Your task to perform on an android device: check google app version Image 0: 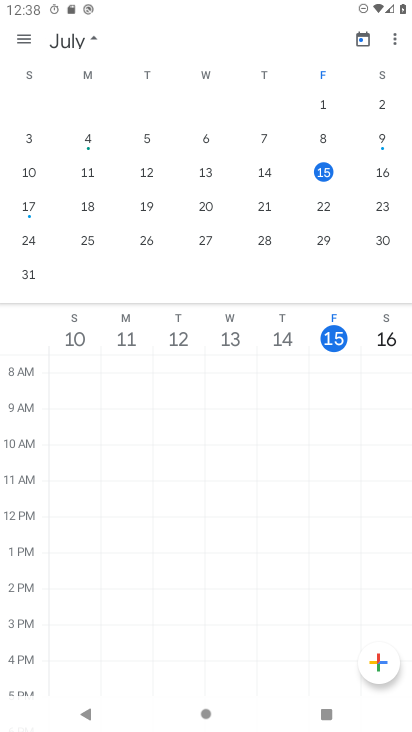
Step 0: press home button
Your task to perform on an android device: check google app version Image 1: 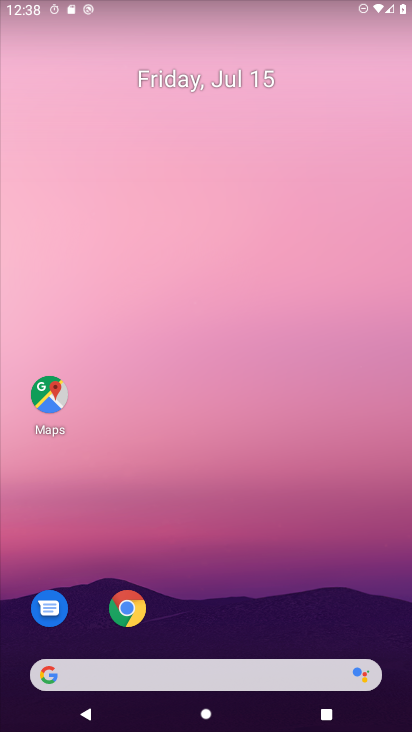
Step 1: drag from (69, 652) to (241, 27)
Your task to perform on an android device: check google app version Image 2: 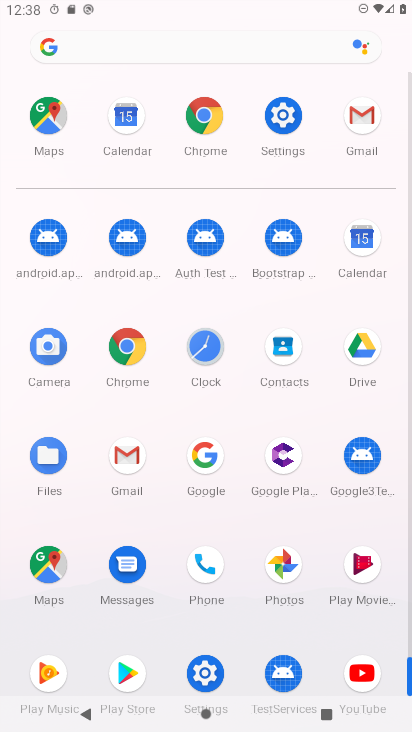
Step 2: click (132, 351)
Your task to perform on an android device: check google app version Image 3: 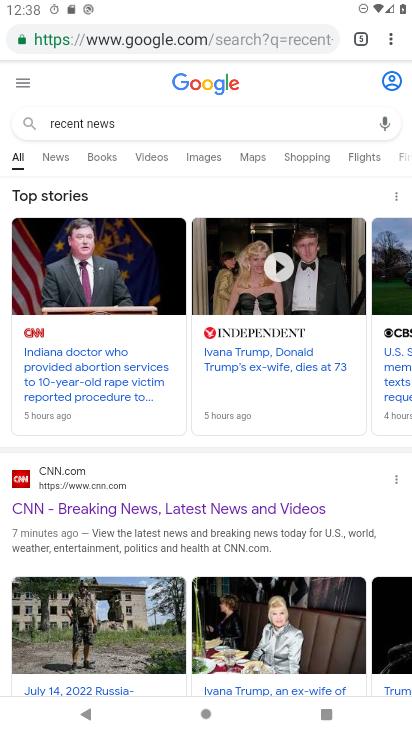
Step 3: drag from (391, 36) to (357, 197)
Your task to perform on an android device: check google app version Image 4: 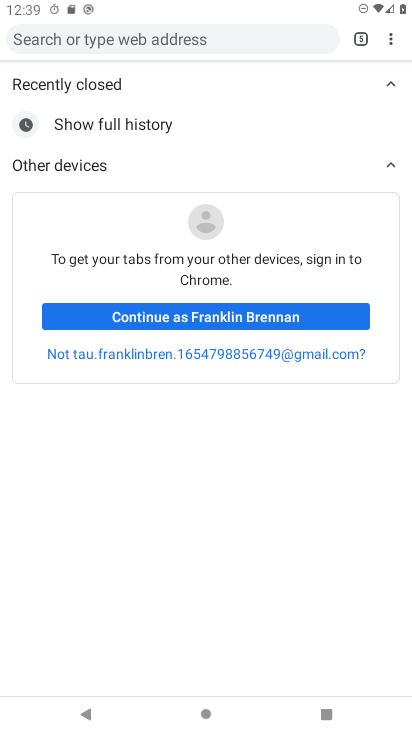
Step 4: click (282, 409)
Your task to perform on an android device: check google app version Image 5: 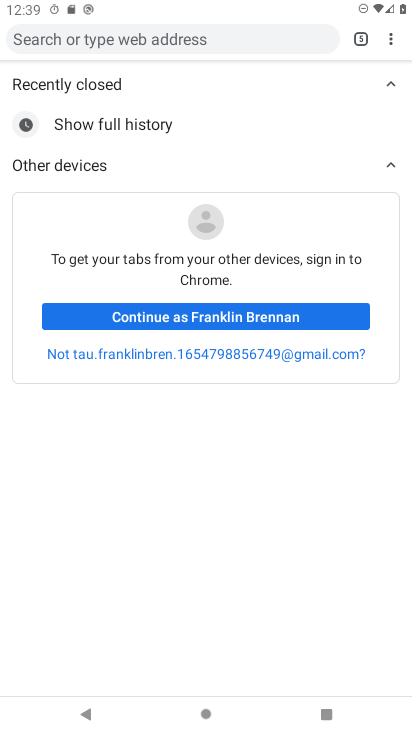
Step 5: click (388, 37)
Your task to perform on an android device: check google app version Image 6: 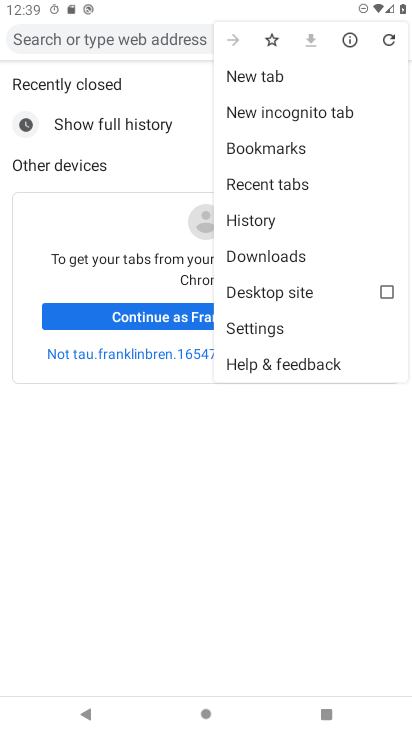
Step 6: click (278, 331)
Your task to perform on an android device: check google app version Image 7: 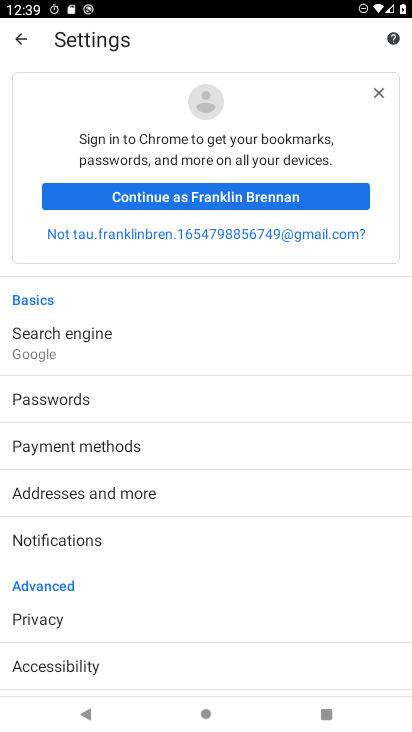
Step 7: drag from (280, 609) to (274, 433)
Your task to perform on an android device: check google app version Image 8: 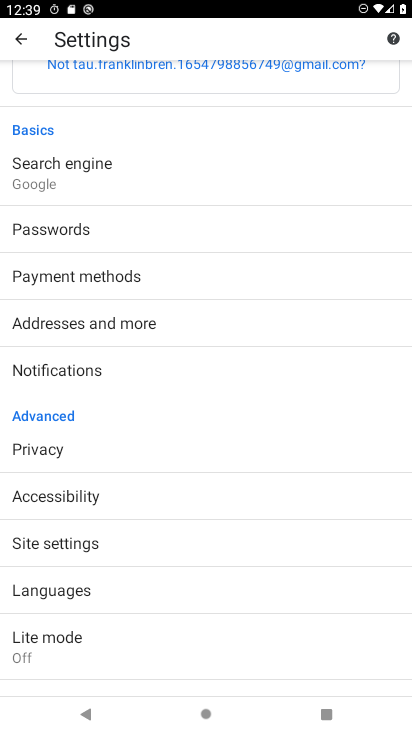
Step 8: drag from (256, 180) to (248, 536)
Your task to perform on an android device: check google app version Image 9: 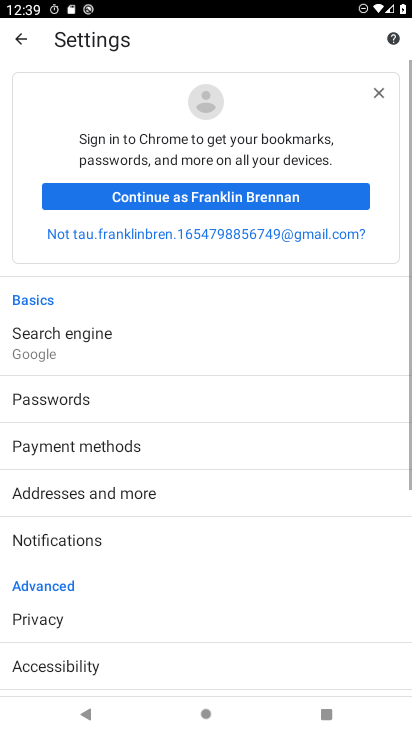
Step 9: press back button
Your task to perform on an android device: check google app version Image 10: 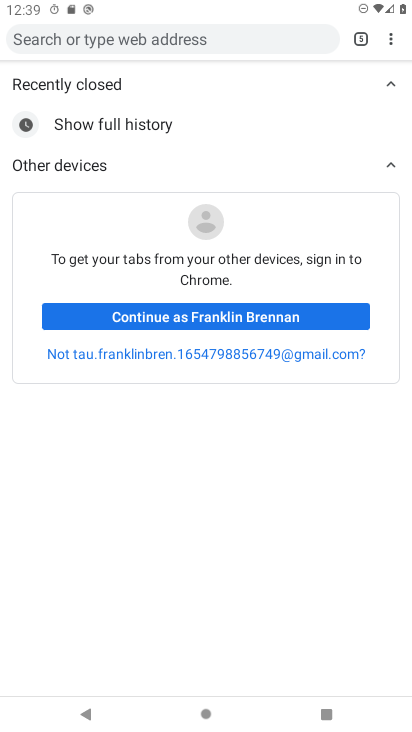
Step 10: click (390, 37)
Your task to perform on an android device: check google app version Image 11: 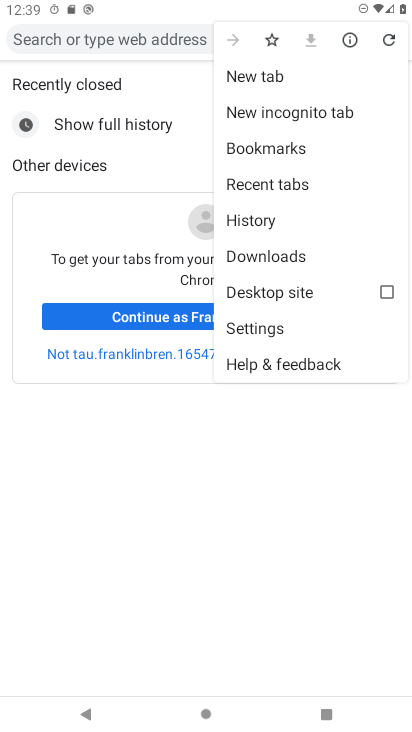
Step 11: click (335, 366)
Your task to perform on an android device: check google app version Image 12: 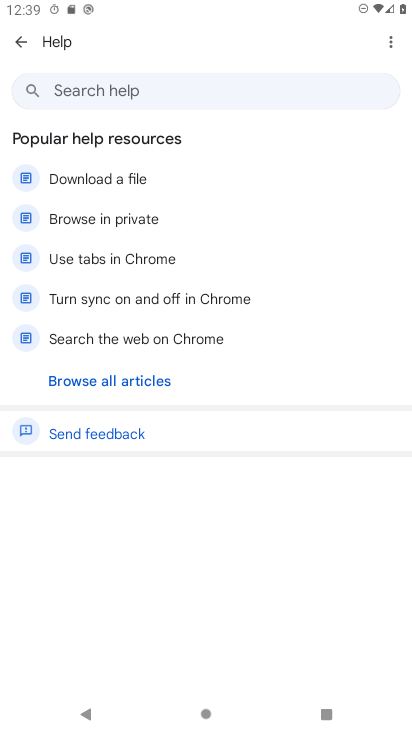
Step 12: click (391, 40)
Your task to perform on an android device: check google app version Image 13: 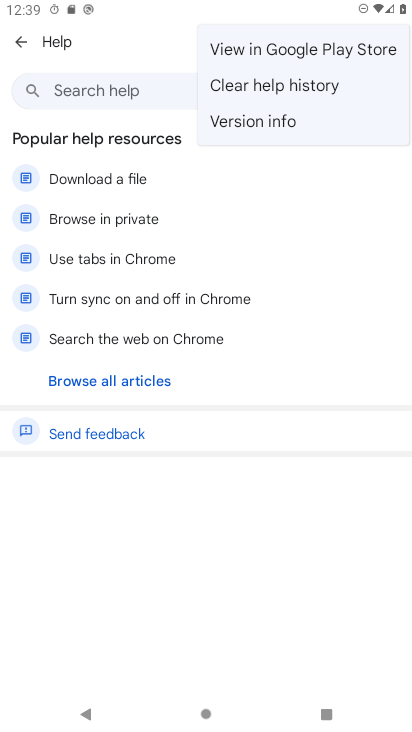
Step 13: click (280, 127)
Your task to perform on an android device: check google app version Image 14: 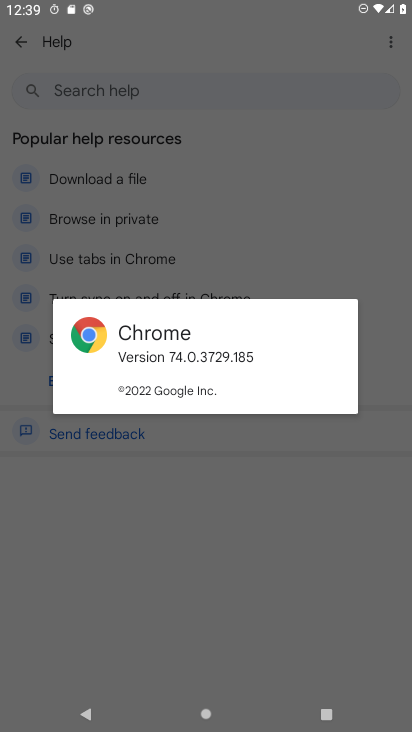
Step 14: task complete